Your task to perform on an android device: check data usage Image 0: 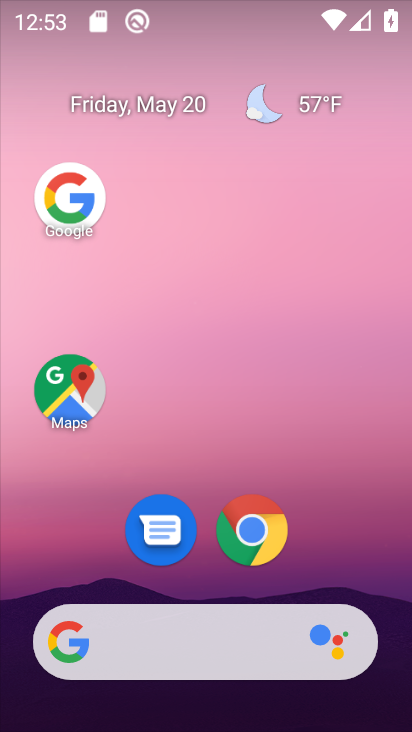
Step 0: drag from (326, 530) to (326, 133)
Your task to perform on an android device: check data usage Image 1: 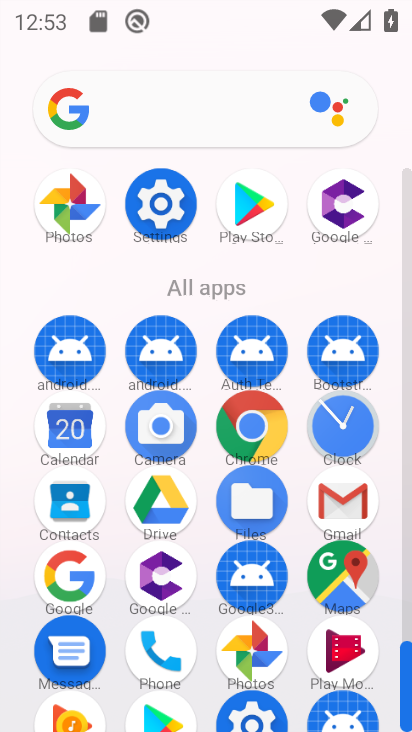
Step 1: click (158, 204)
Your task to perform on an android device: check data usage Image 2: 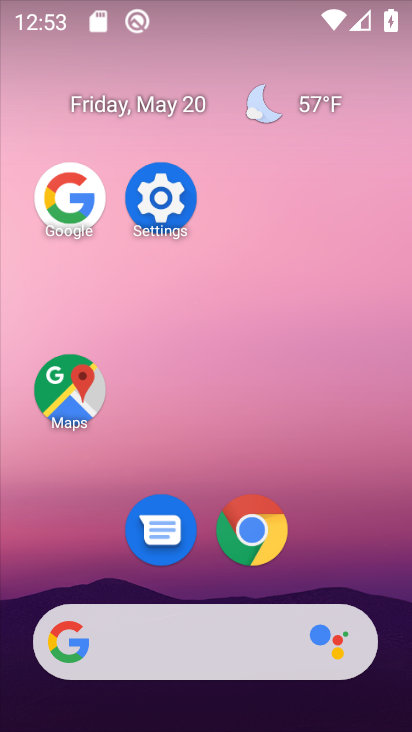
Step 2: click (174, 203)
Your task to perform on an android device: check data usage Image 3: 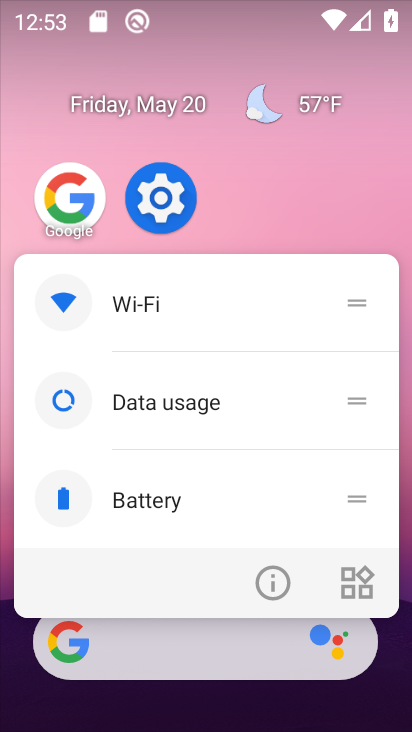
Step 3: click (171, 182)
Your task to perform on an android device: check data usage Image 4: 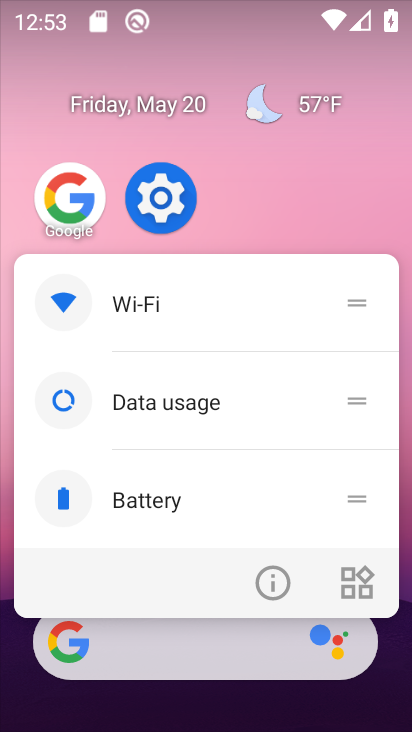
Step 4: click (171, 182)
Your task to perform on an android device: check data usage Image 5: 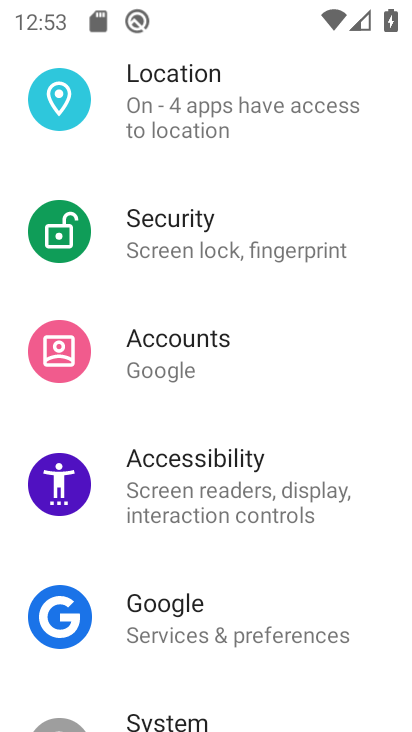
Step 5: drag from (261, 178) to (270, 596)
Your task to perform on an android device: check data usage Image 6: 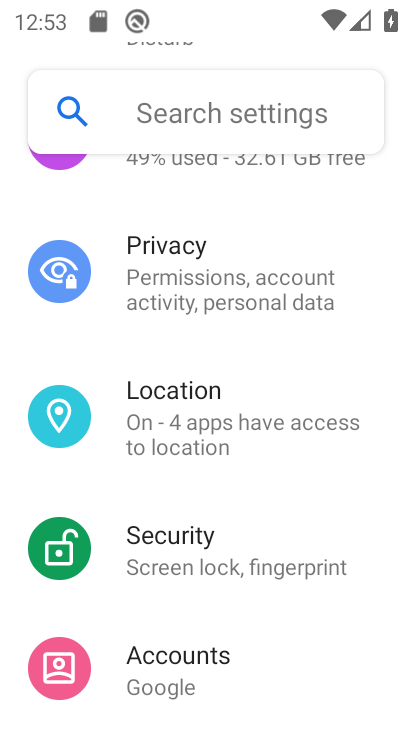
Step 6: drag from (300, 189) to (291, 600)
Your task to perform on an android device: check data usage Image 7: 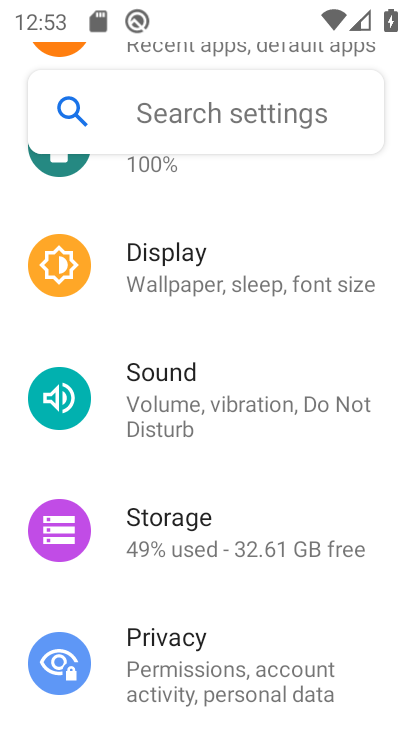
Step 7: drag from (288, 196) to (271, 591)
Your task to perform on an android device: check data usage Image 8: 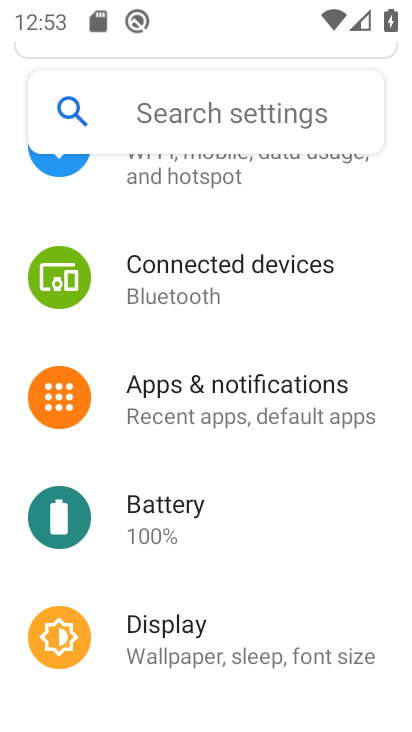
Step 8: drag from (286, 224) to (259, 536)
Your task to perform on an android device: check data usage Image 9: 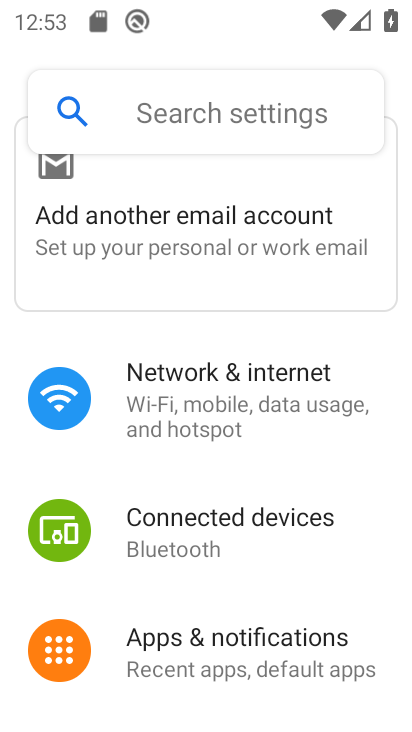
Step 9: click (264, 439)
Your task to perform on an android device: check data usage Image 10: 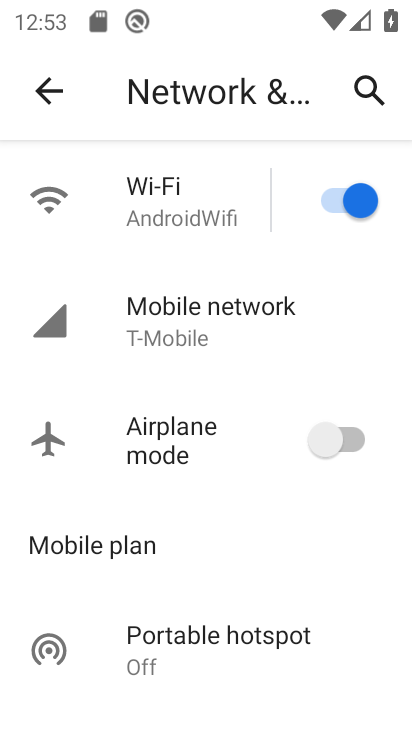
Step 10: click (203, 308)
Your task to perform on an android device: check data usage Image 11: 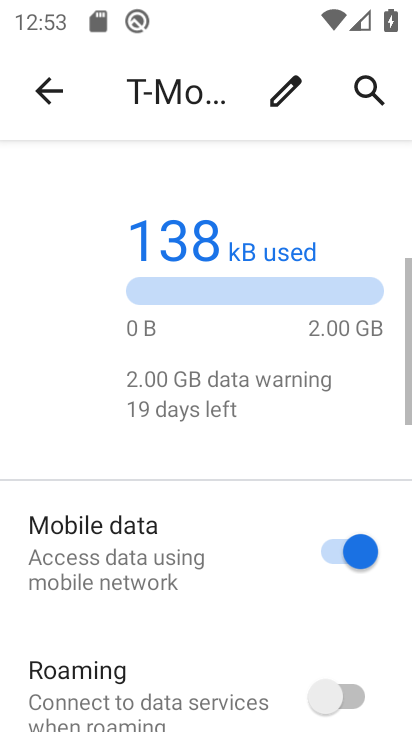
Step 11: drag from (232, 567) to (246, 253)
Your task to perform on an android device: check data usage Image 12: 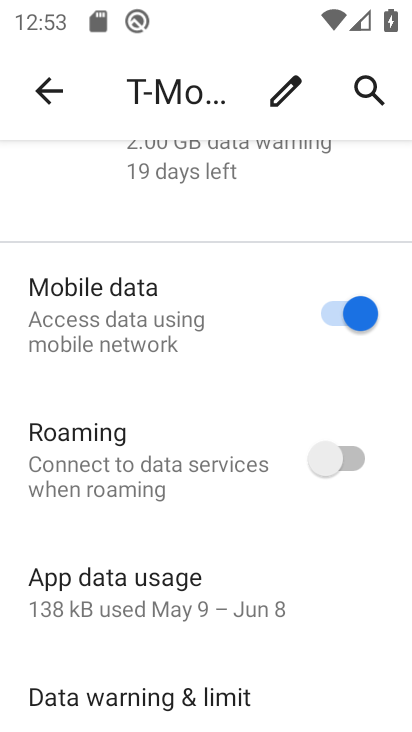
Step 12: click (251, 594)
Your task to perform on an android device: check data usage Image 13: 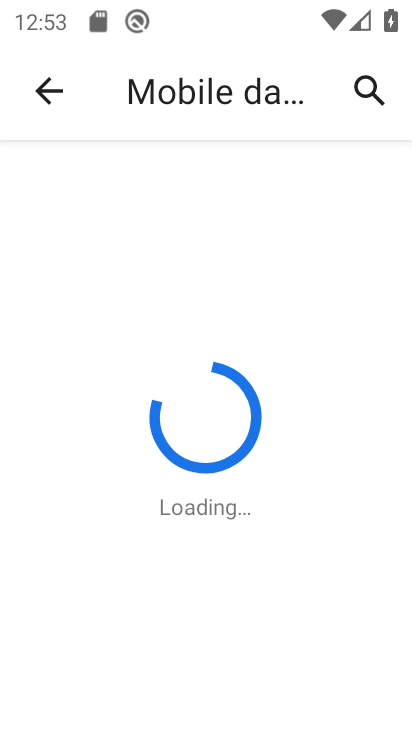
Step 13: task complete